Your task to perform on an android device: turn on improve location accuracy Image 0: 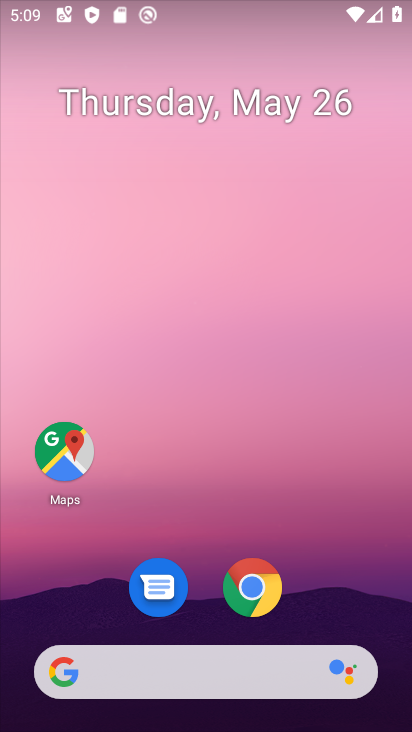
Step 0: drag from (316, 564) to (293, 33)
Your task to perform on an android device: turn on improve location accuracy Image 1: 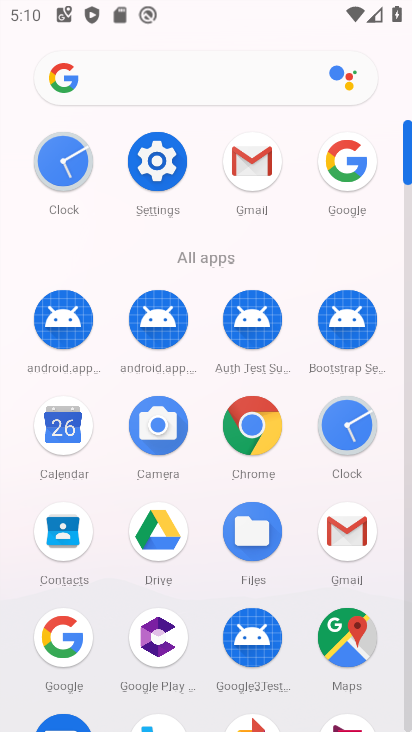
Step 1: click (159, 161)
Your task to perform on an android device: turn on improve location accuracy Image 2: 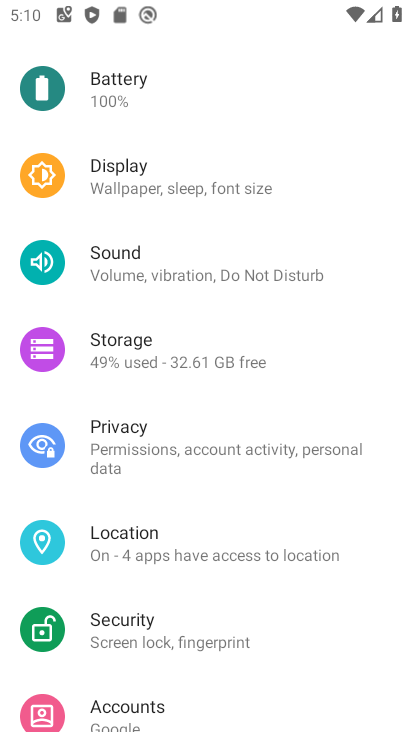
Step 2: click (131, 546)
Your task to perform on an android device: turn on improve location accuracy Image 3: 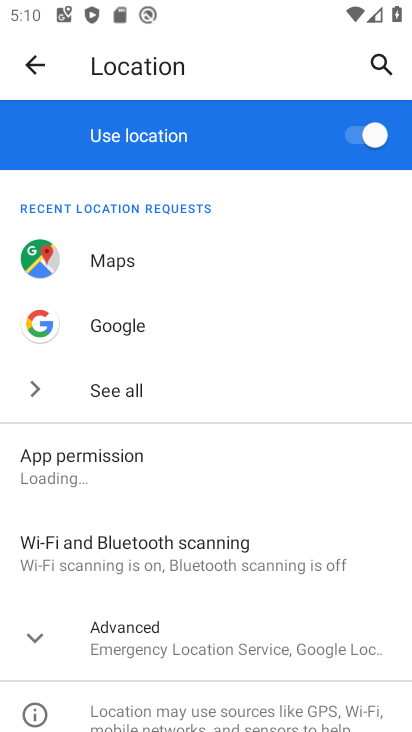
Step 3: click (147, 627)
Your task to perform on an android device: turn on improve location accuracy Image 4: 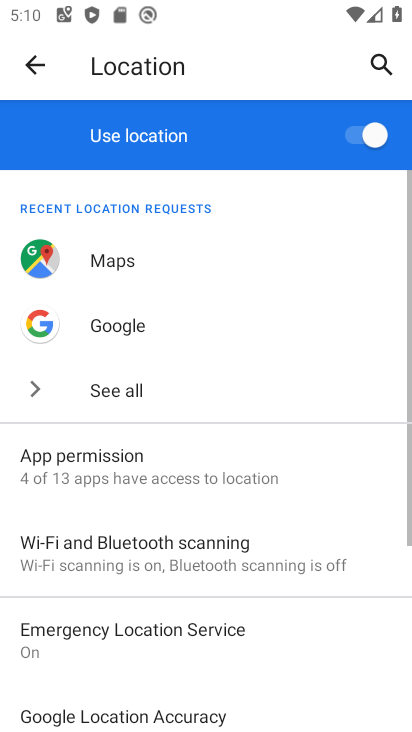
Step 4: drag from (149, 632) to (204, 514)
Your task to perform on an android device: turn on improve location accuracy Image 5: 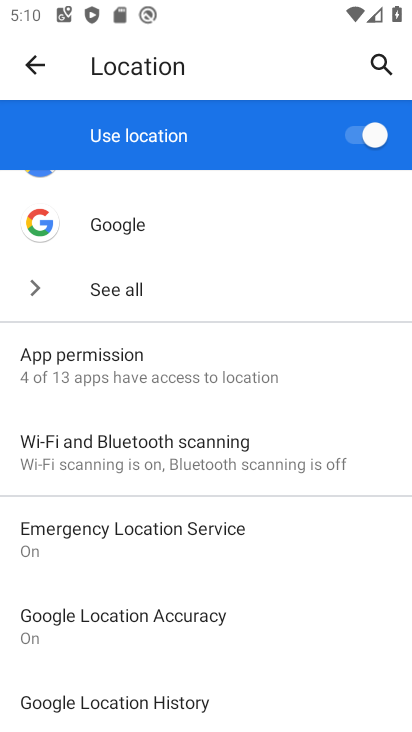
Step 5: click (159, 624)
Your task to perform on an android device: turn on improve location accuracy Image 6: 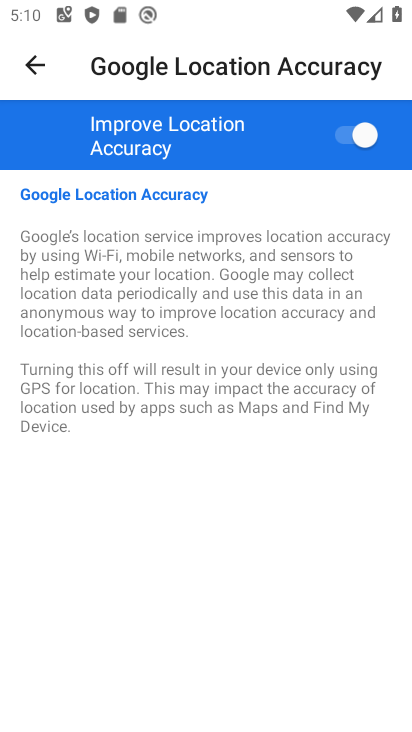
Step 6: task complete